Your task to perform on an android device: Clear all items from cart on newegg.com. Search for macbook pro 13 inch on newegg.com, select the first entry, and add it to the cart. Image 0: 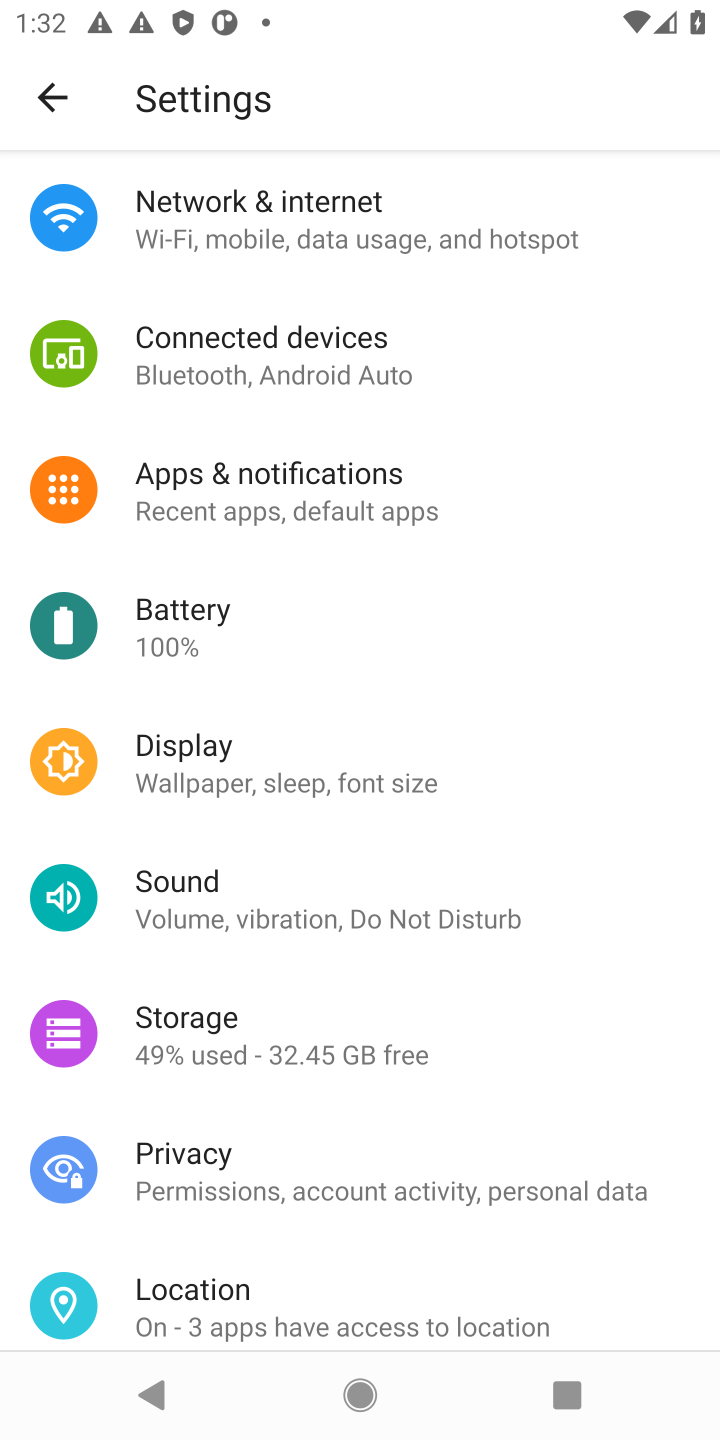
Step 0: press home button
Your task to perform on an android device: Clear all items from cart on newegg.com. Search for macbook pro 13 inch on newegg.com, select the first entry, and add it to the cart. Image 1: 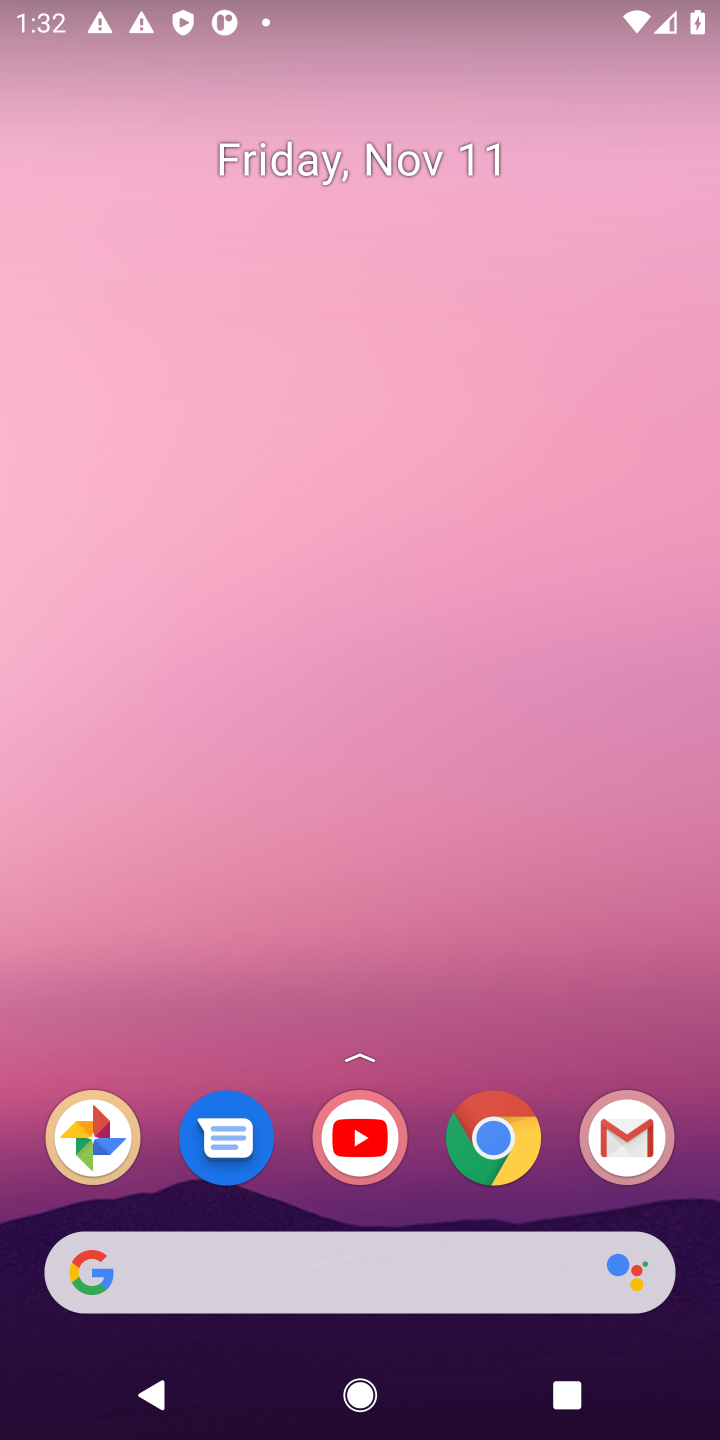
Step 1: click (364, 1264)
Your task to perform on an android device: Clear all items from cart on newegg.com. Search for macbook pro 13 inch on newegg.com, select the first entry, and add it to the cart. Image 2: 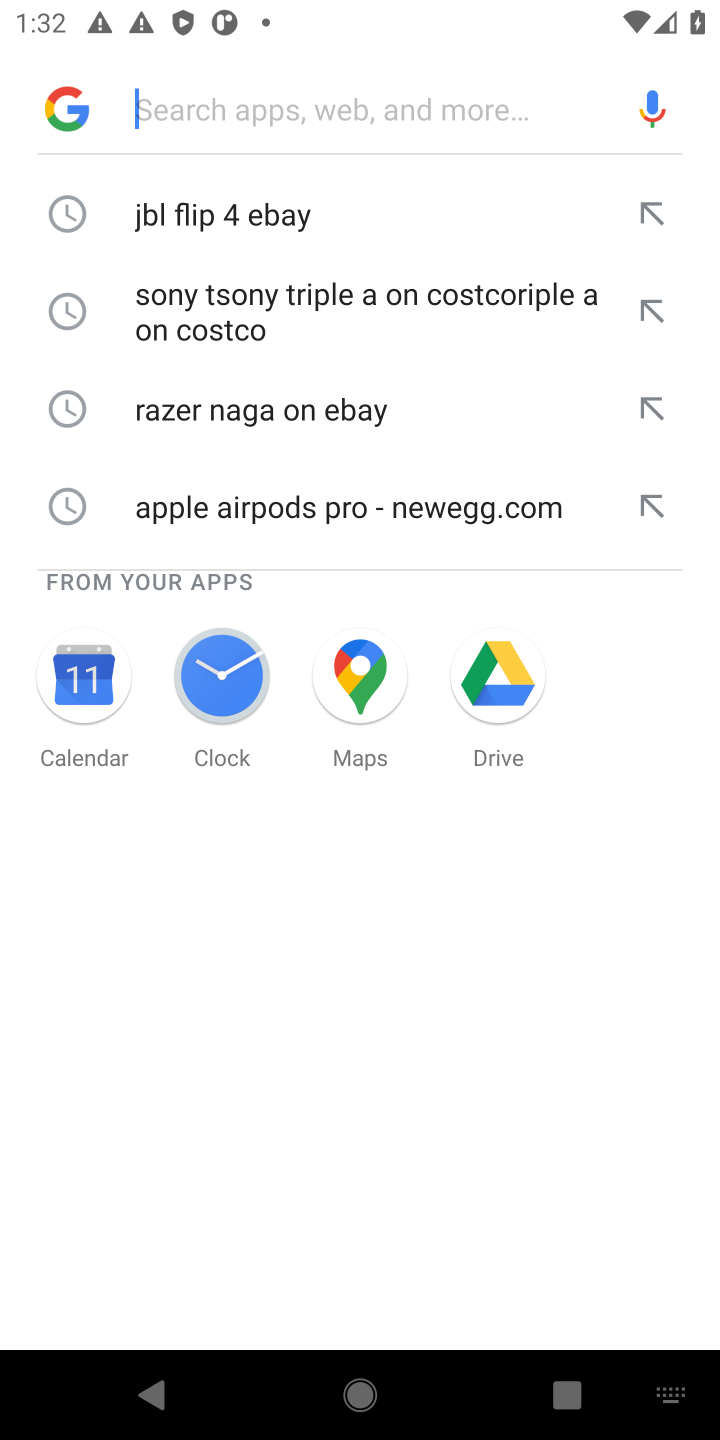
Step 2: type "macbook pro 13 inch on newegg"
Your task to perform on an android device: Clear all items from cart on newegg.com. Search for macbook pro 13 inch on newegg.com, select the first entry, and add it to the cart. Image 3: 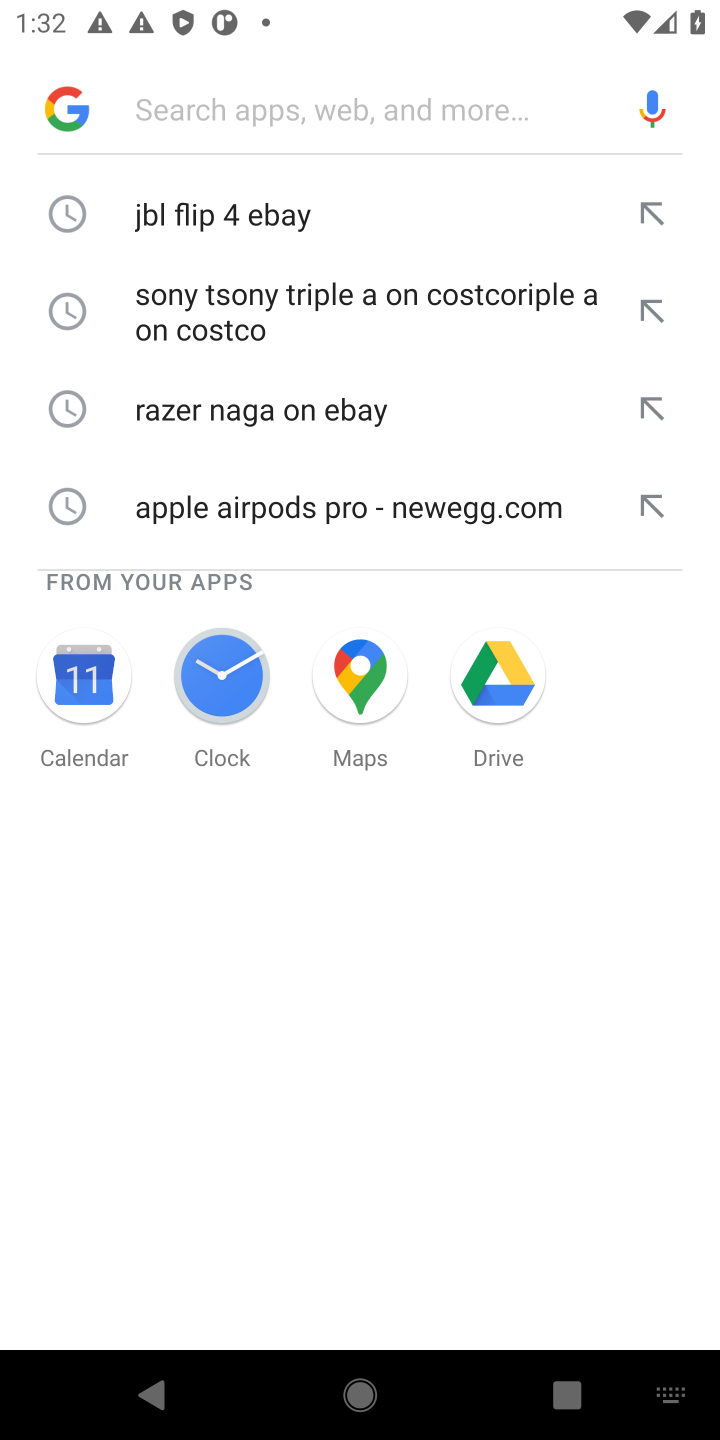
Step 3: click (267, 114)
Your task to perform on an android device: Clear all items from cart on newegg.com. Search for macbook pro 13 inch on newegg.com, select the first entry, and add it to the cart. Image 4: 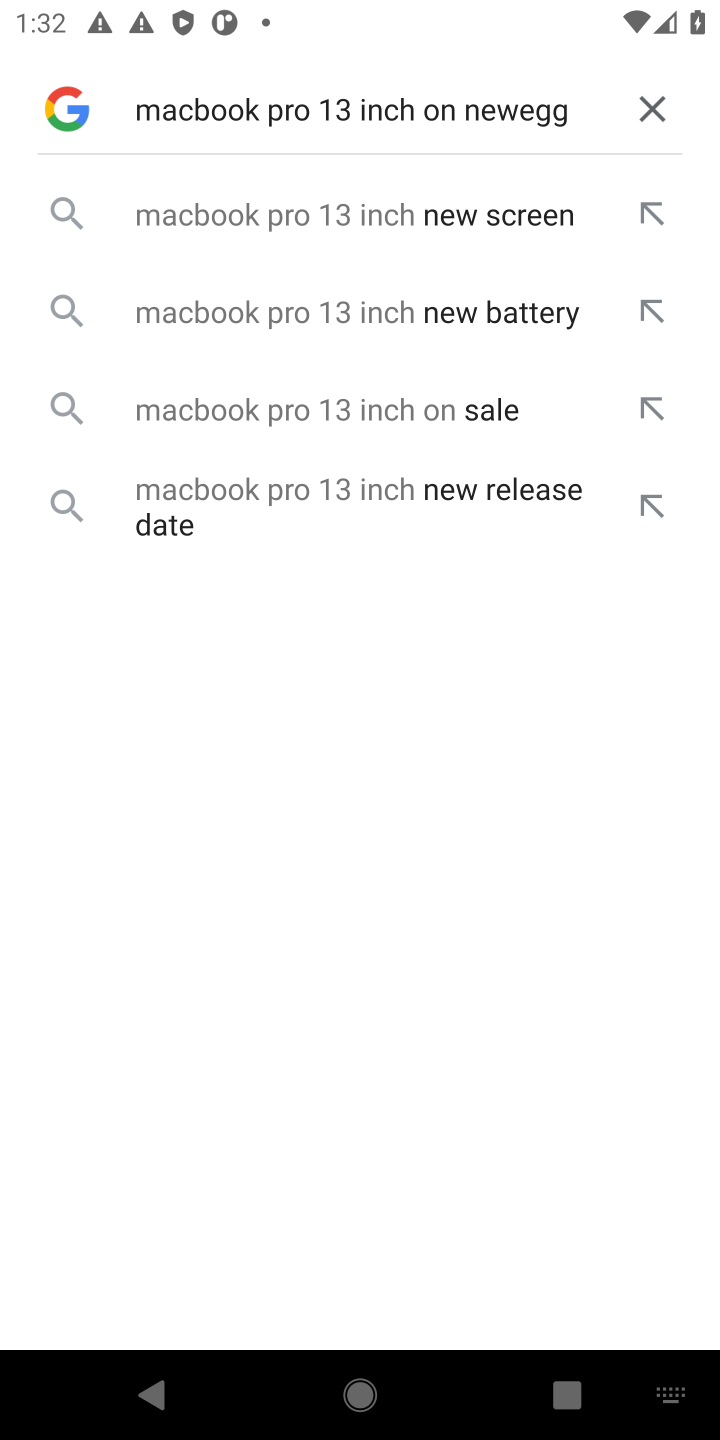
Step 4: click (531, 107)
Your task to perform on an android device: Clear all items from cart on newegg.com. Search for macbook pro 13 inch on newegg.com, select the first entry, and add it to the cart. Image 5: 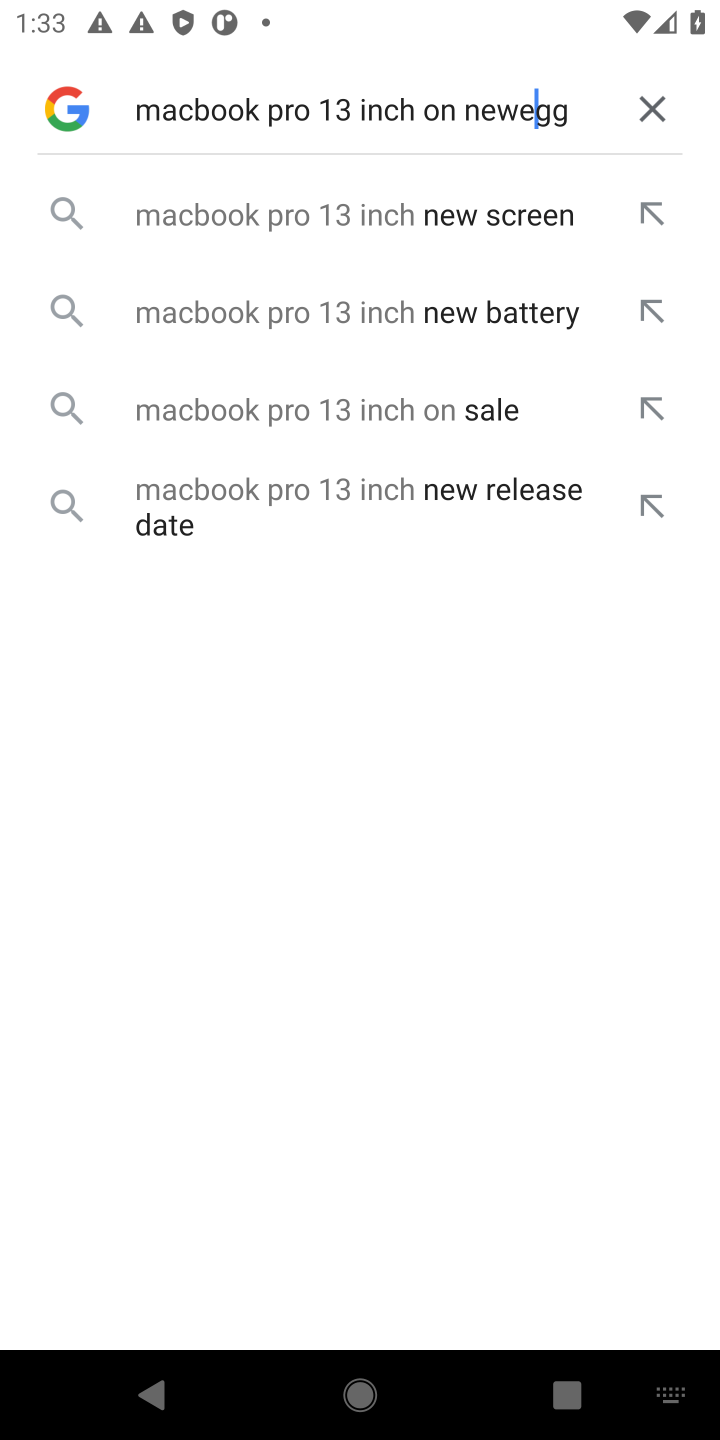
Step 5: click (607, 116)
Your task to perform on an android device: Clear all items from cart on newegg.com. Search for macbook pro 13 inch on newegg.com, select the first entry, and add it to the cart. Image 6: 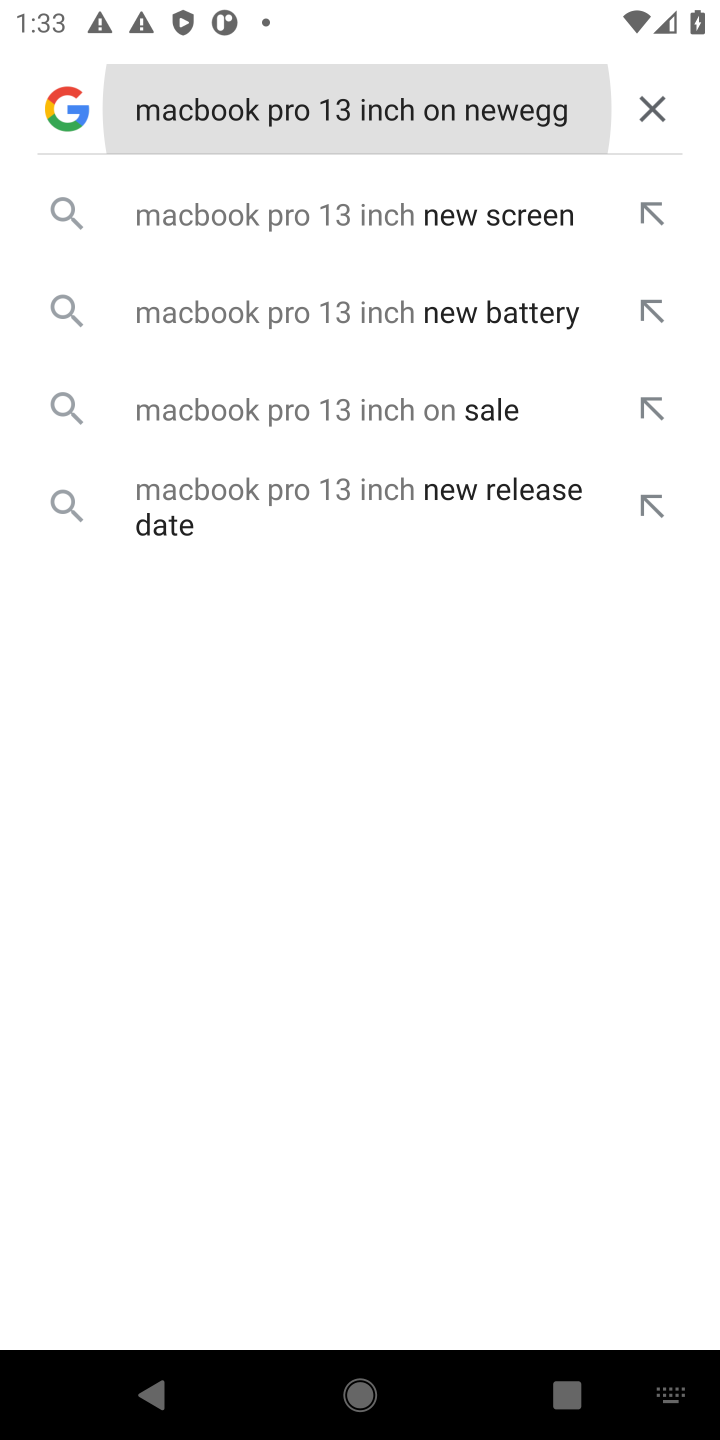
Step 6: click (607, 116)
Your task to perform on an android device: Clear all items from cart on newegg.com. Search for macbook pro 13 inch on newegg.com, select the first entry, and add it to the cart. Image 7: 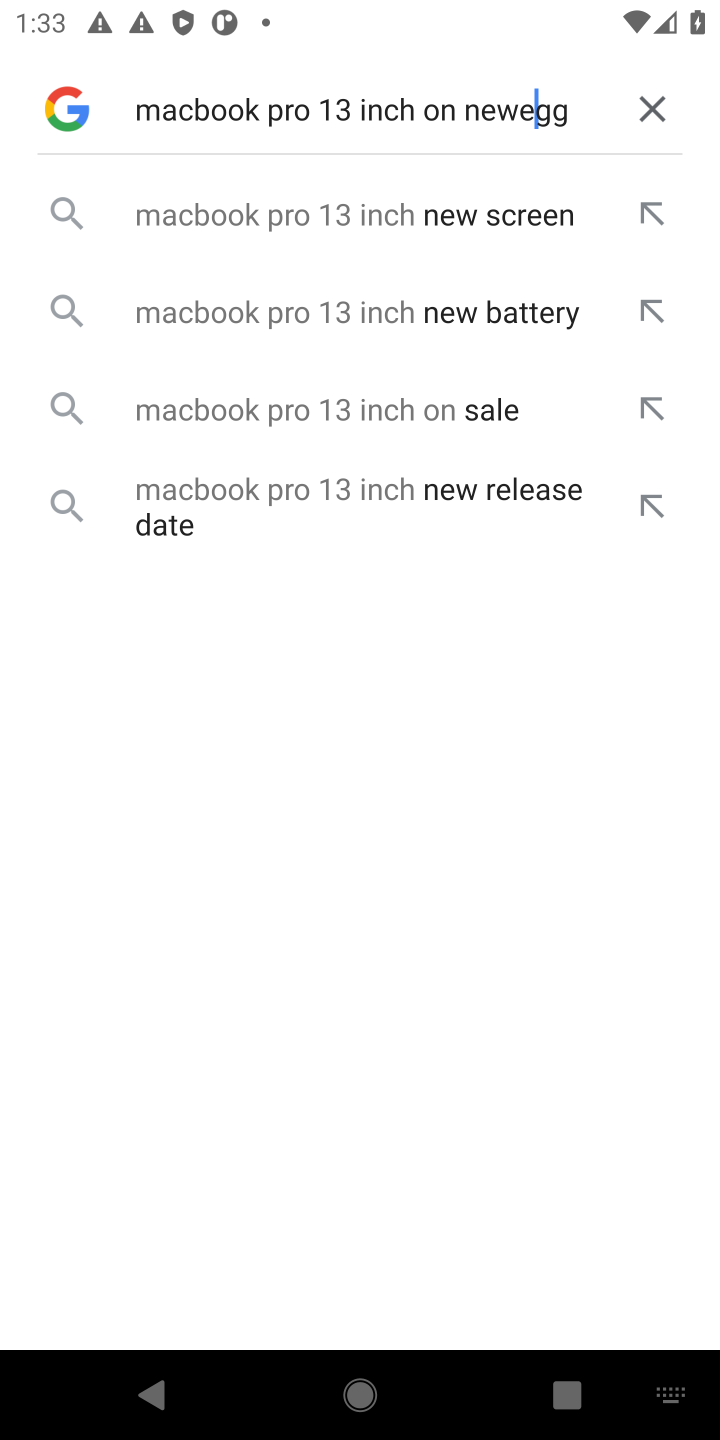
Step 7: click (607, 116)
Your task to perform on an android device: Clear all items from cart on newegg.com. Search for macbook pro 13 inch on newegg.com, select the first entry, and add it to the cart. Image 8: 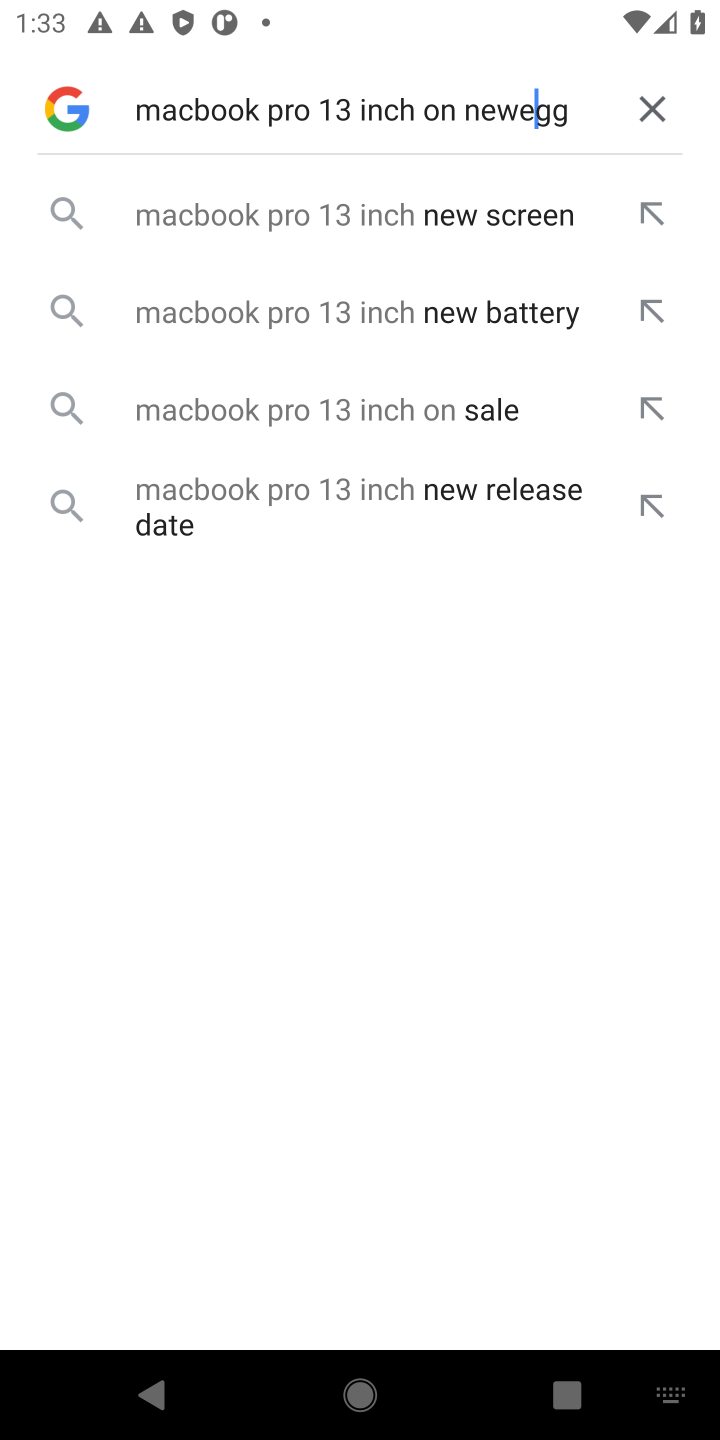
Step 8: click (578, 104)
Your task to perform on an android device: Clear all items from cart on newegg.com. Search for macbook pro 13 inch on newegg.com, select the first entry, and add it to the cart. Image 9: 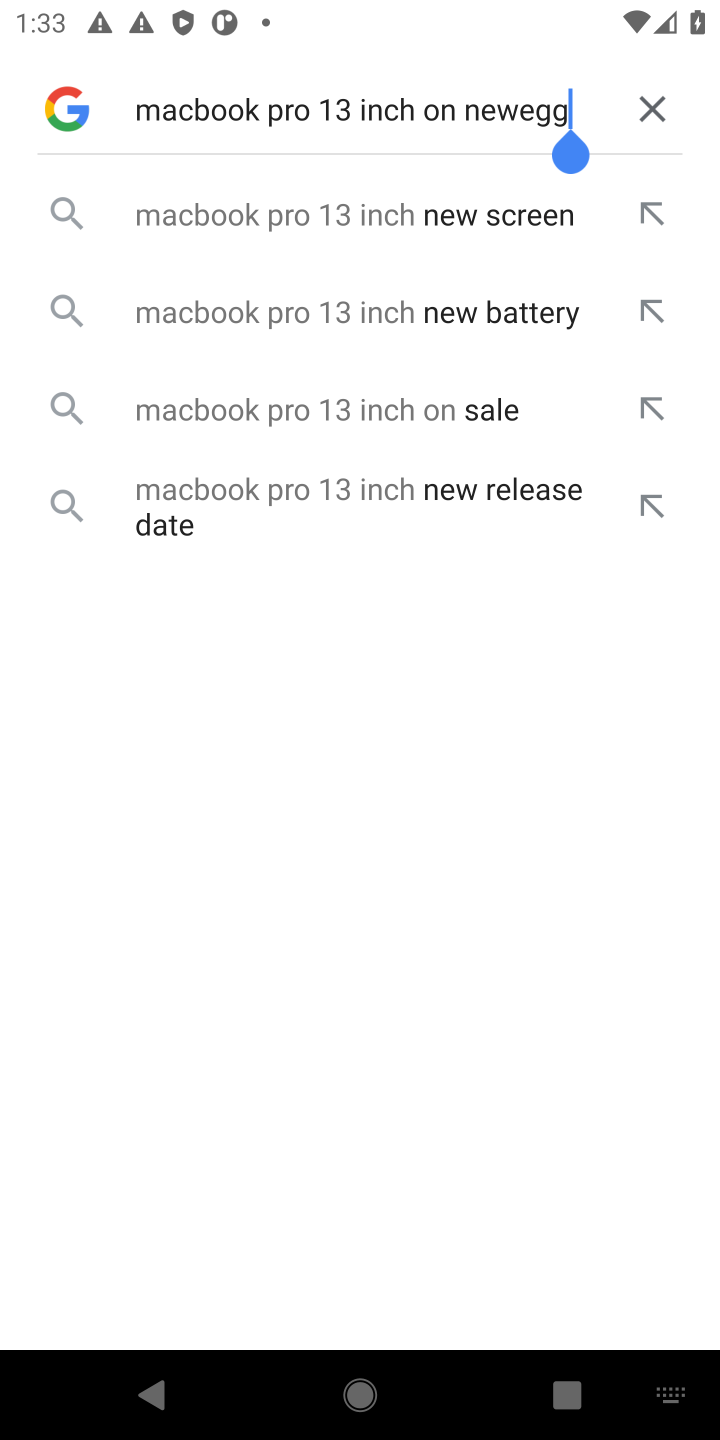
Step 9: click (641, 101)
Your task to perform on an android device: Clear all items from cart on newegg.com. Search for macbook pro 13 inch on newegg.com, select the first entry, and add it to the cart. Image 10: 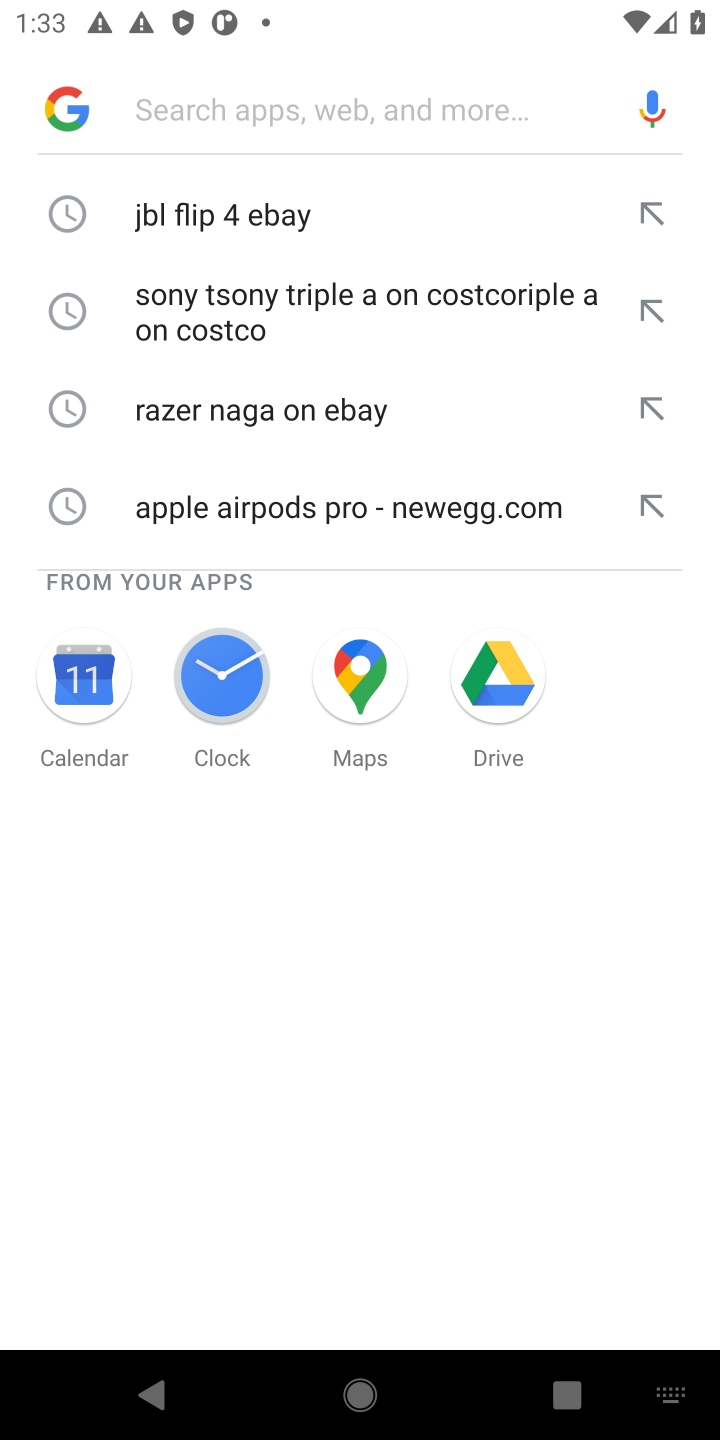
Step 10: type "macbook pro 13 inch on newegg"
Your task to perform on an android device: Clear all items from cart on newegg.com. Search for macbook pro 13 inch on newegg.com, select the first entry, and add it to the cart. Image 11: 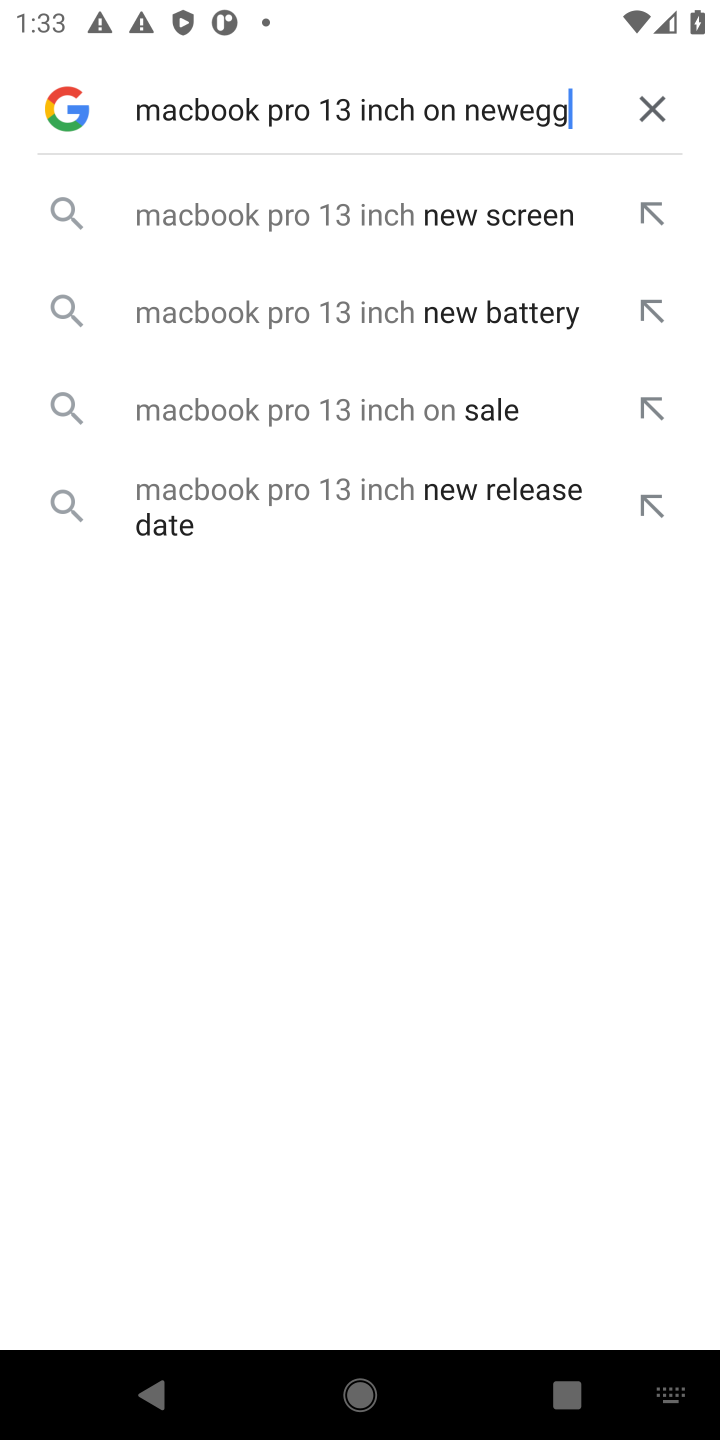
Step 11: click (650, 100)
Your task to perform on an android device: Clear all items from cart on newegg.com. Search for macbook pro 13 inch on newegg.com, select the first entry, and add it to the cart. Image 12: 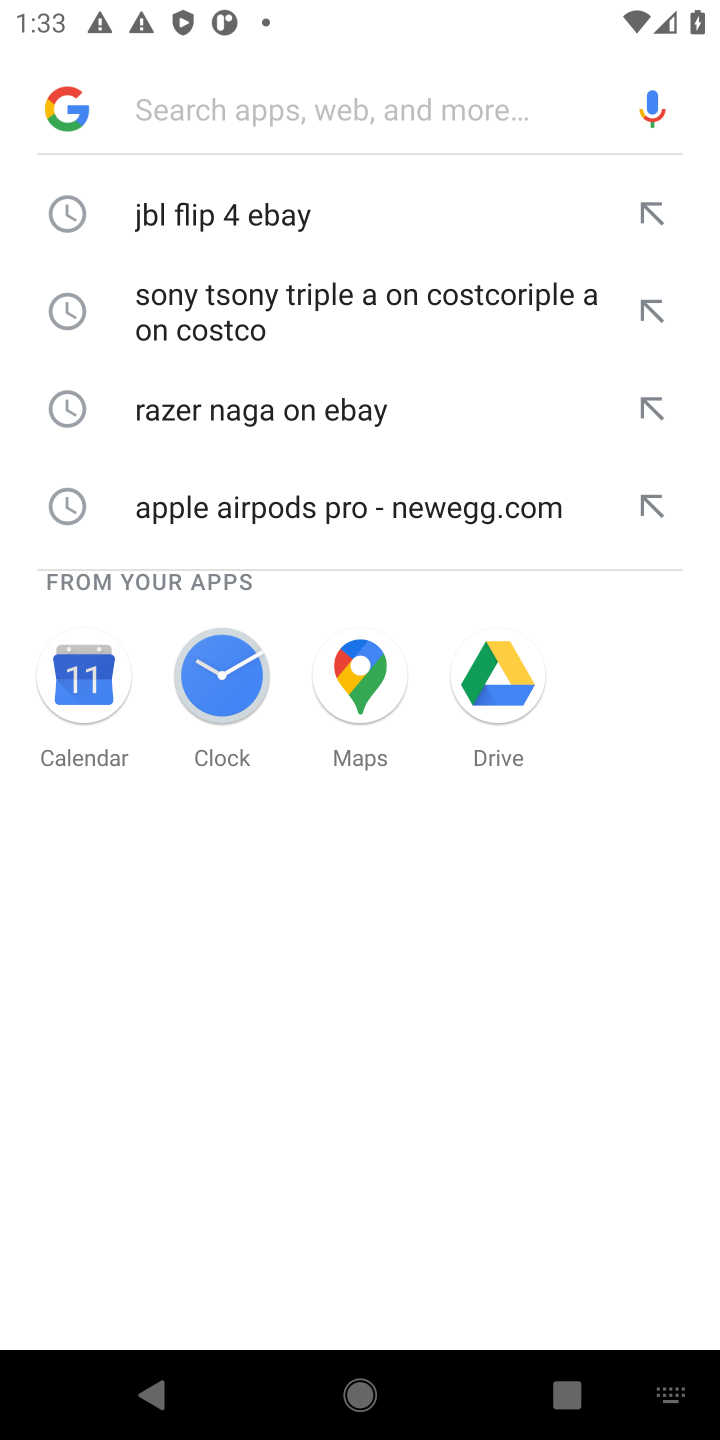
Step 12: type "newegg"
Your task to perform on an android device: Clear all items from cart on newegg.com. Search for macbook pro 13 inch on newegg.com, select the first entry, and add it to the cart. Image 13: 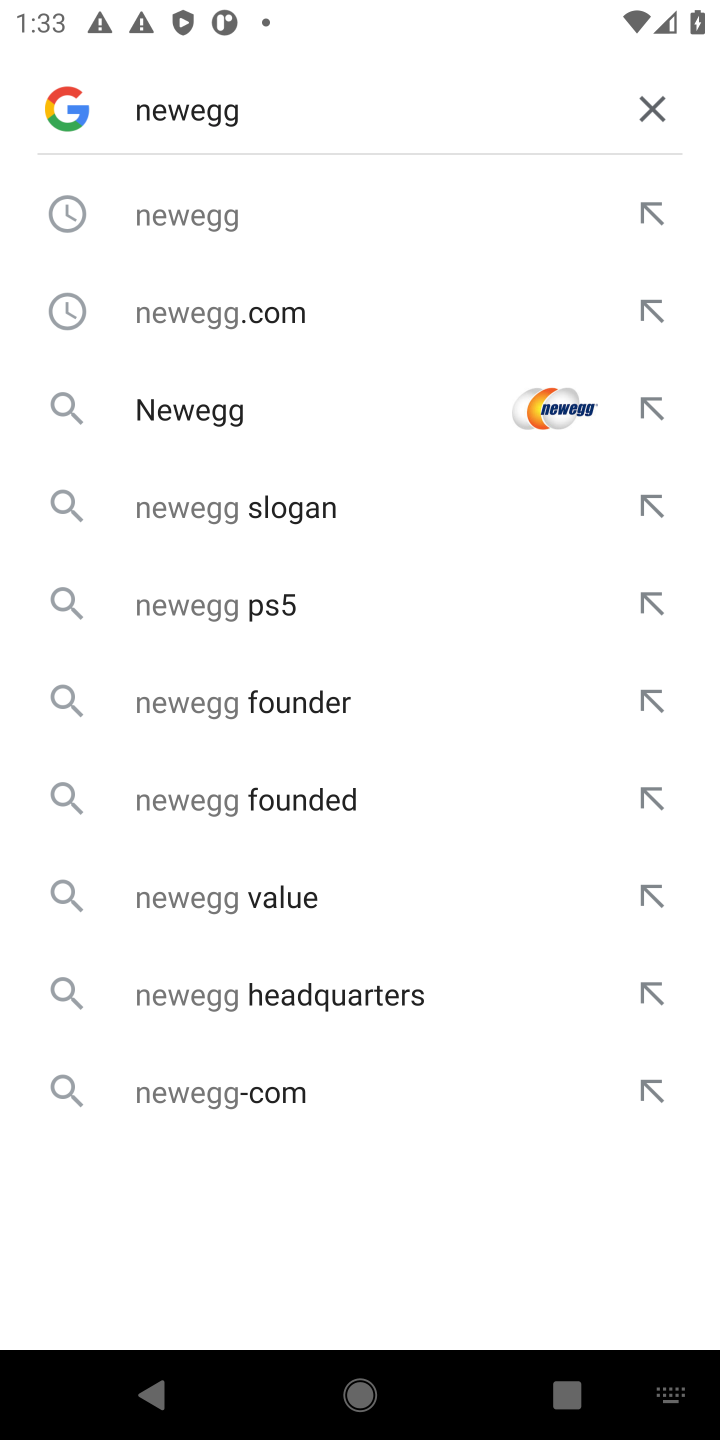
Step 13: click (164, 398)
Your task to perform on an android device: Clear all items from cart on newegg.com. Search for macbook pro 13 inch on newegg.com, select the first entry, and add it to the cart. Image 14: 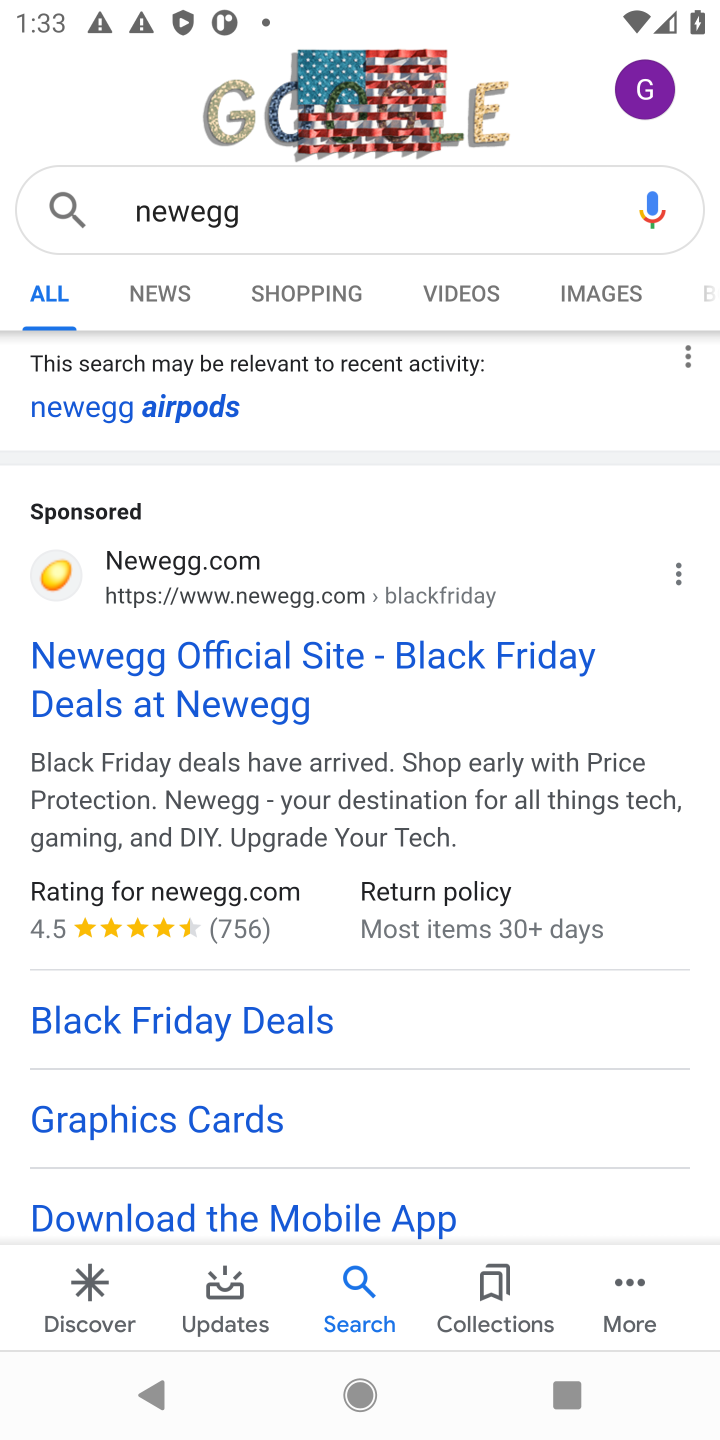
Step 14: drag from (445, 1185) to (473, 475)
Your task to perform on an android device: Clear all items from cart on newegg.com. Search for macbook pro 13 inch on newegg.com, select the first entry, and add it to the cart. Image 15: 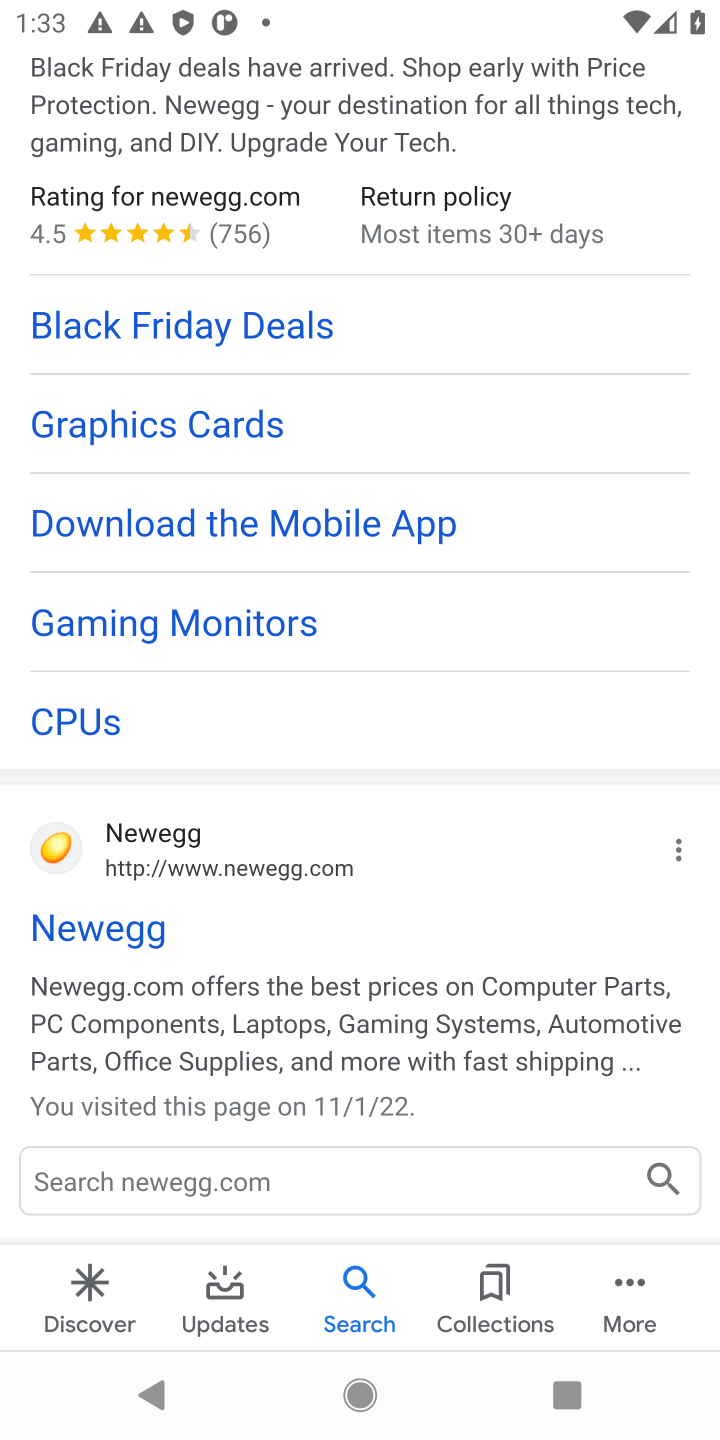
Step 15: drag from (320, 1019) to (489, 384)
Your task to perform on an android device: Clear all items from cart on newegg.com. Search for macbook pro 13 inch on newegg.com, select the first entry, and add it to the cart. Image 16: 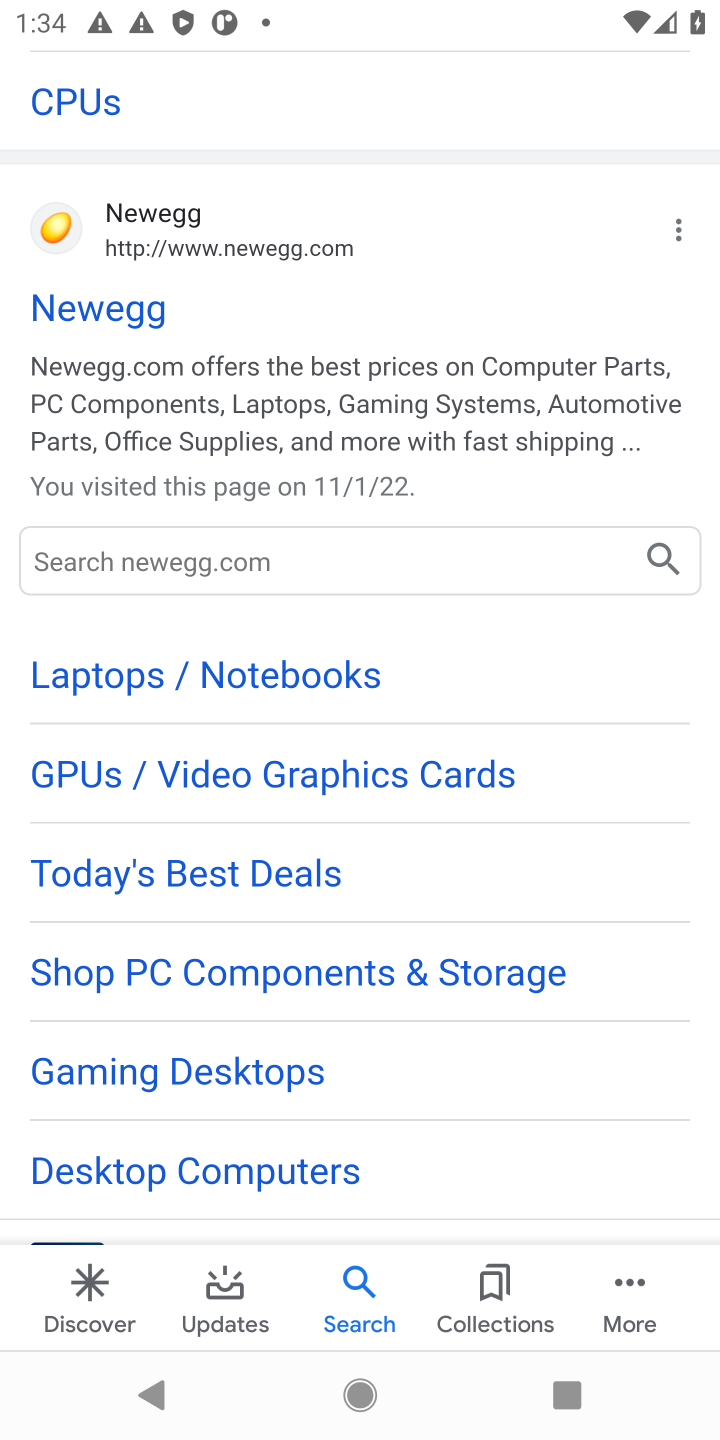
Step 16: click (221, 1175)
Your task to perform on an android device: Clear all items from cart on newegg.com. Search for macbook pro 13 inch on newegg.com, select the first entry, and add it to the cart. Image 17: 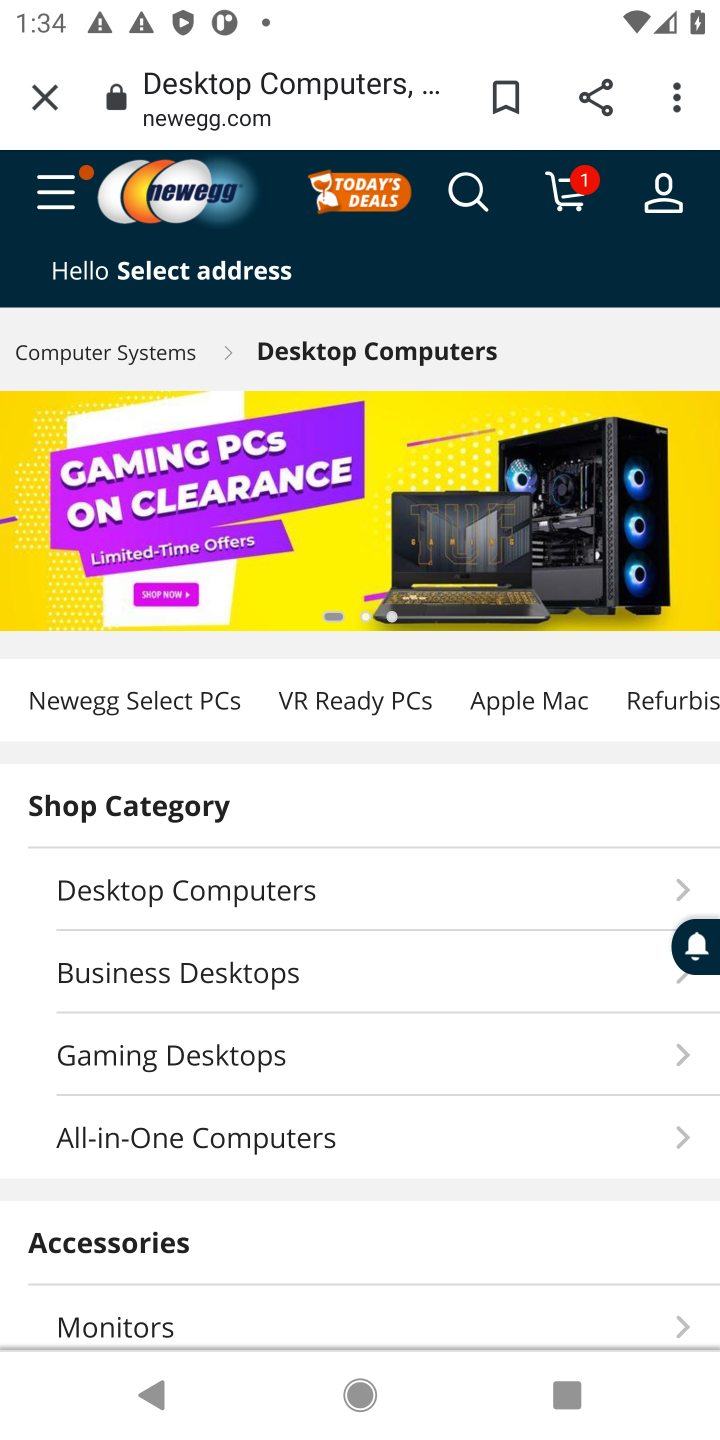
Step 17: click (456, 202)
Your task to perform on an android device: Clear all items from cart on newegg.com. Search for macbook pro 13 inch on newegg.com, select the first entry, and add it to the cart. Image 18: 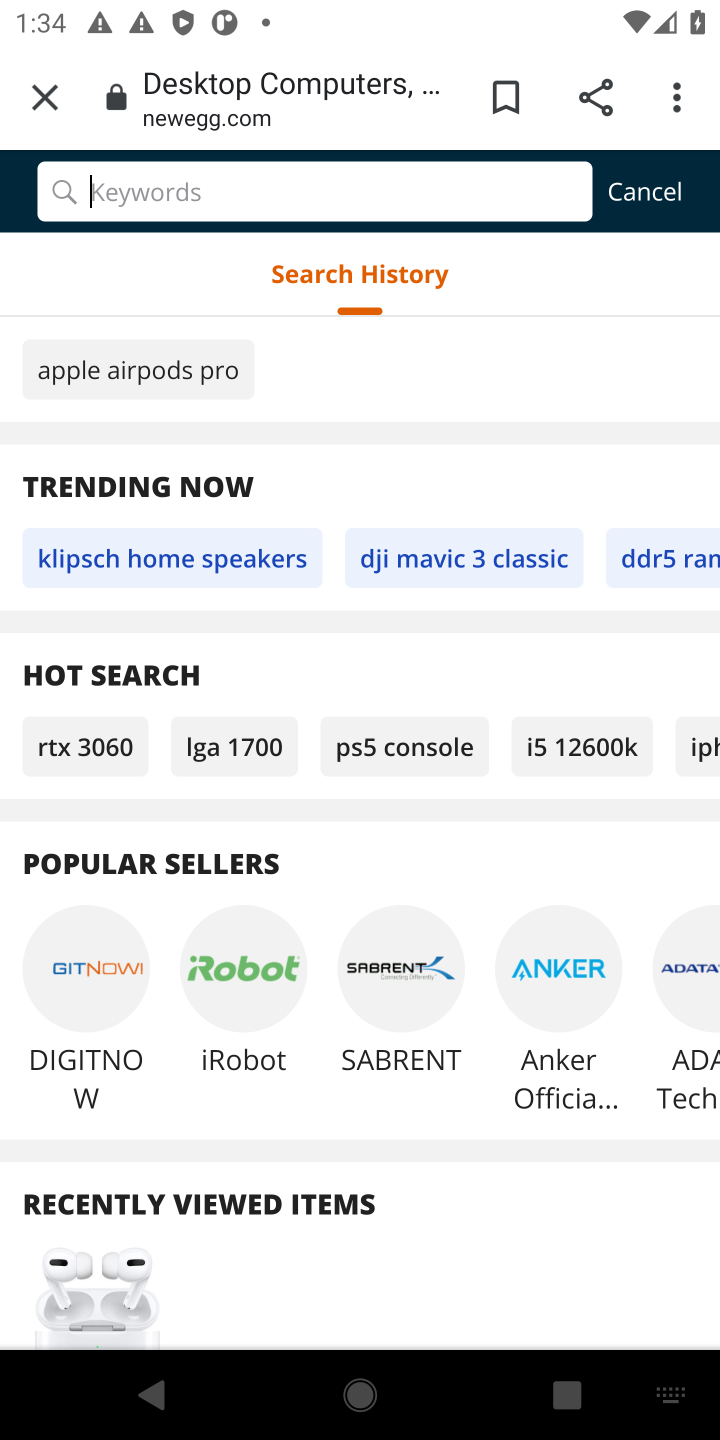
Step 18: type "macbook pro 13 inch on newegg"
Your task to perform on an android device: Clear all items from cart on newegg.com. Search for macbook pro 13 inch on newegg.com, select the first entry, and add it to the cart. Image 19: 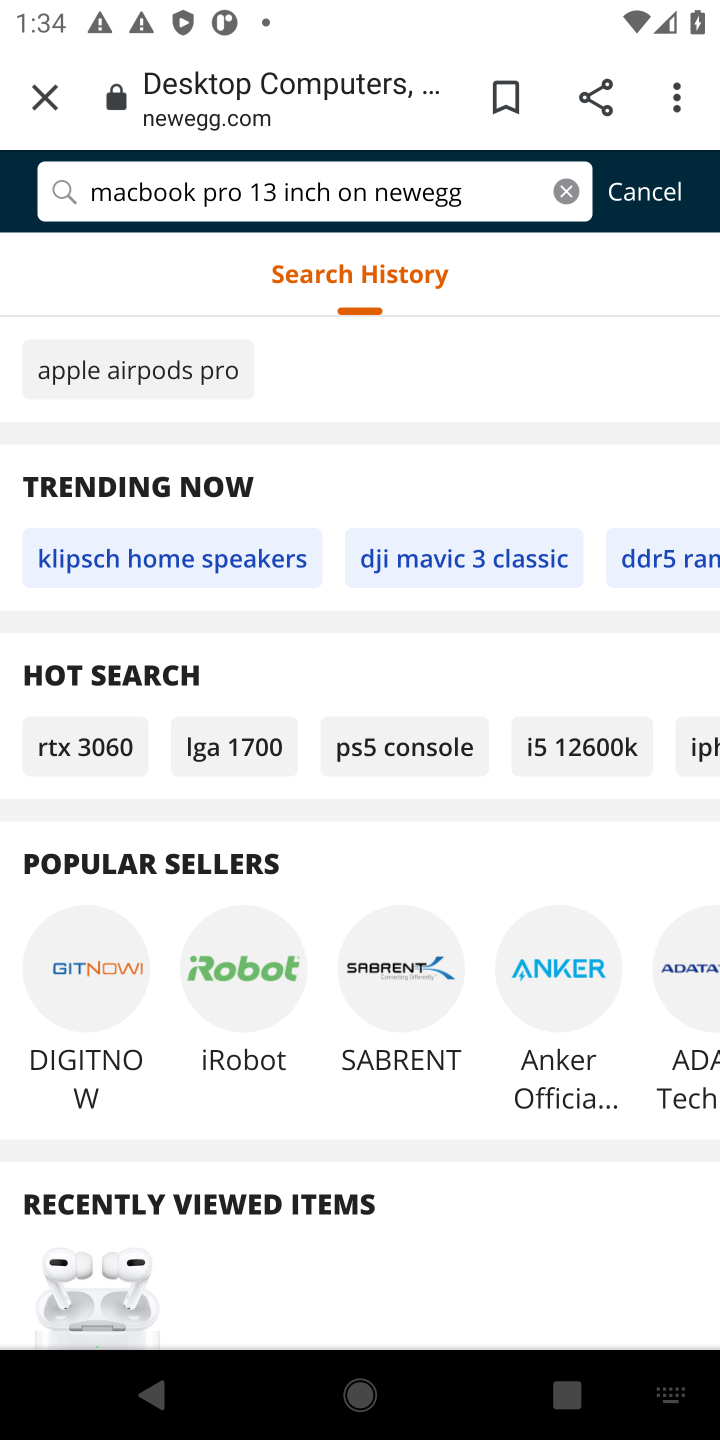
Step 19: click (563, 195)
Your task to perform on an android device: Clear all items from cart on newegg.com. Search for macbook pro 13 inch on newegg.com, select the first entry, and add it to the cart. Image 20: 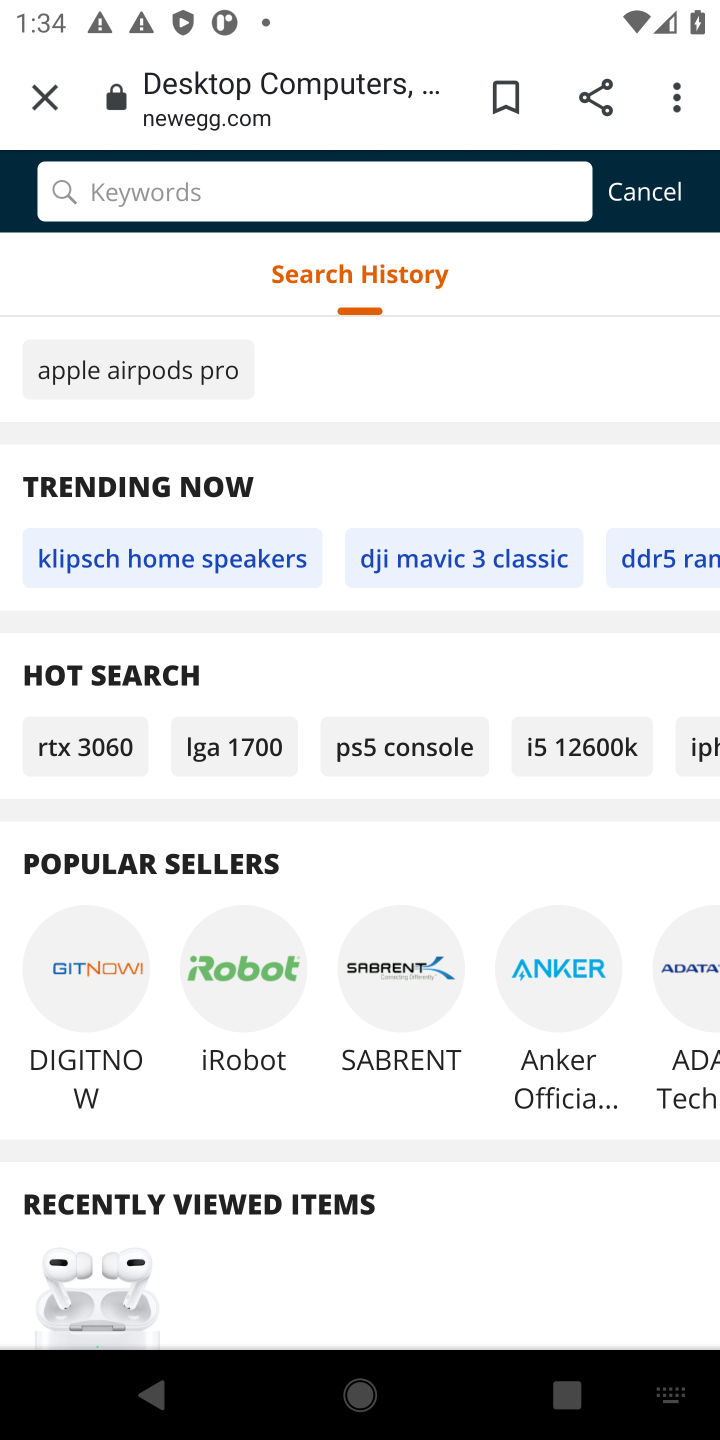
Step 20: click (43, 93)
Your task to perform on an android device: Clear all items from cart on newegg.com. Search for macbook pro 13 inch on newegg.com, select the first entry, and add it to the cart. Image 21: 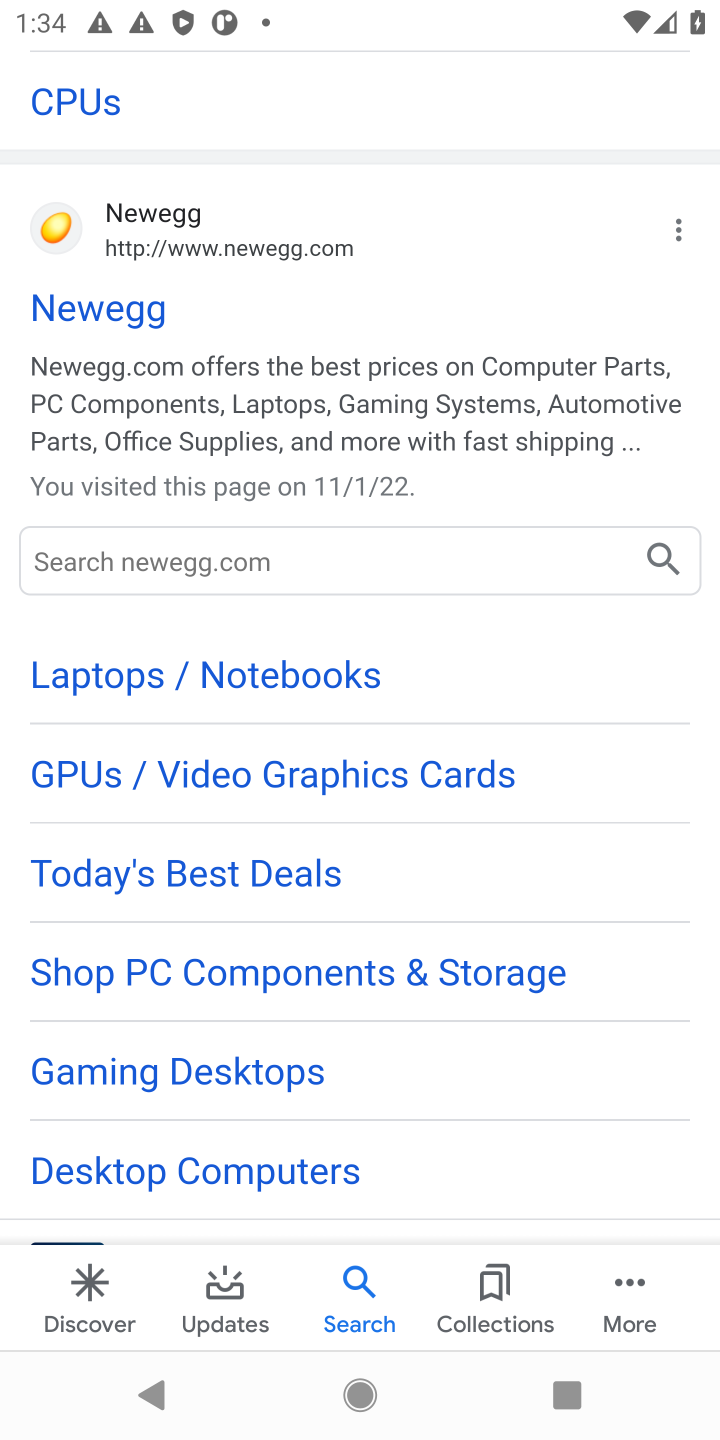
Step 21: task complete